Your task to perform on an android device: Open the Play Movies app and select the watchlist tab. Image 0: 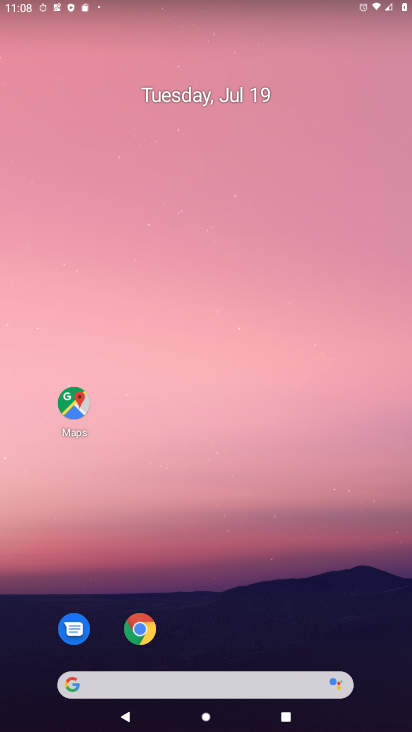
Step 0: drag from (354, 529) to (295, 88)
Your task to perform on an android device: Open the Play Movies app and select the watchlist tab. Image 1: 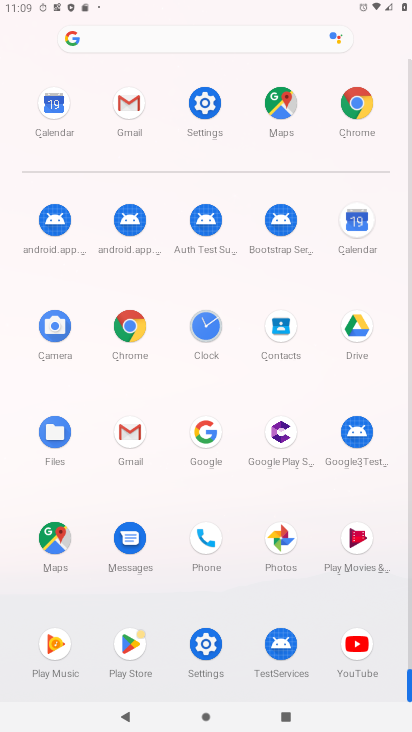
Step 1: click (366, 528)
Your task to perform on an android device: Open the Play Movies app and select the watchlist tab. Image 2: 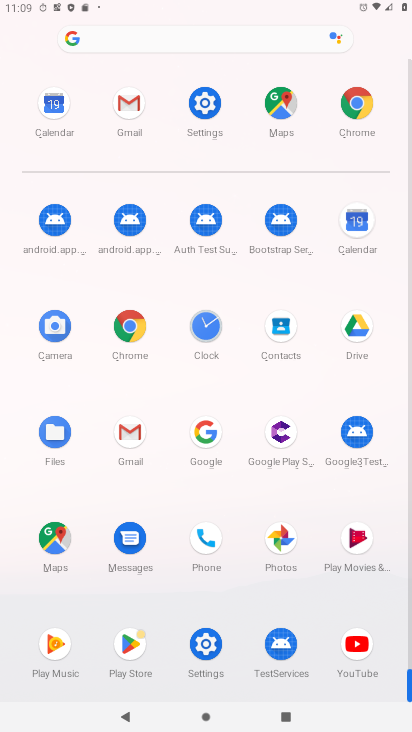
Step 2: click (366, 529)
Your task to perform on an android device: Open the Play Movies app and select the watchlist tab. Image 3: 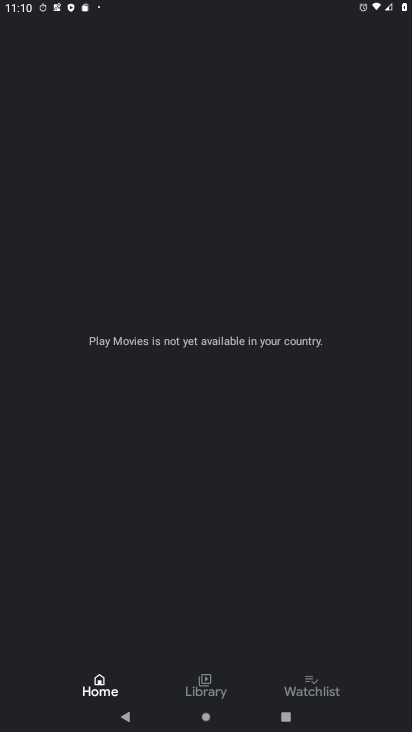
Step 3: click (317, 686)
Your task to perform on an android device: Open the Play Movies app and select the watchlist tab. Image 4: 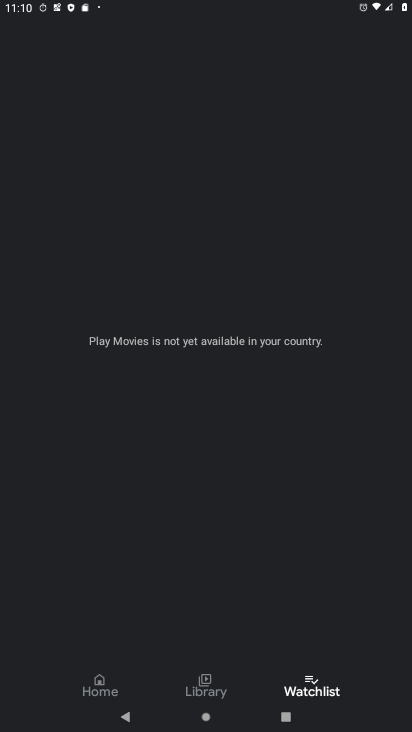
Step 4: click (317, 686)
Your task to perform on an android device: Open the Play Movies app and select the watchlist tab. Image 5: 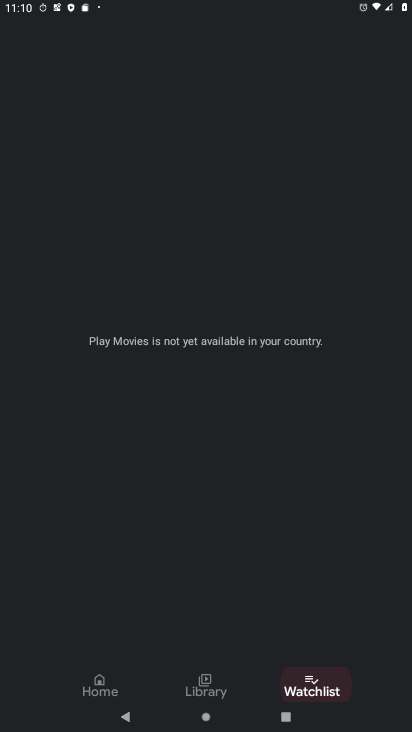
Step 5: click (316, 685)
Your task to perform on an android device: Open the Play Movies app and select the watchlist tab. Image 6: 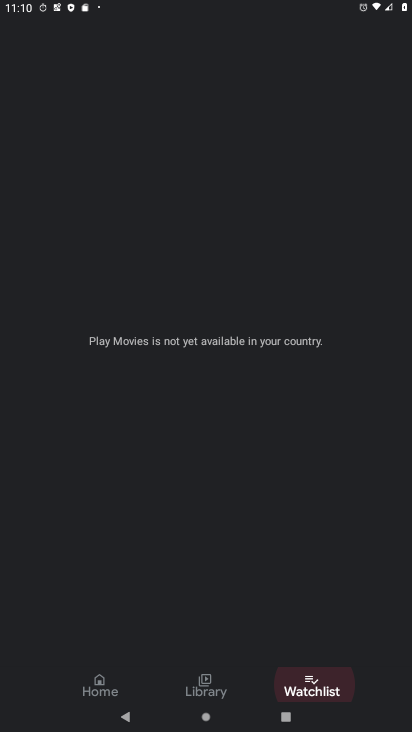
Step 6: click (315, 685)
Your task to perform on an android device: Open the Play Movies app and select the watchlist tab. Image 7: 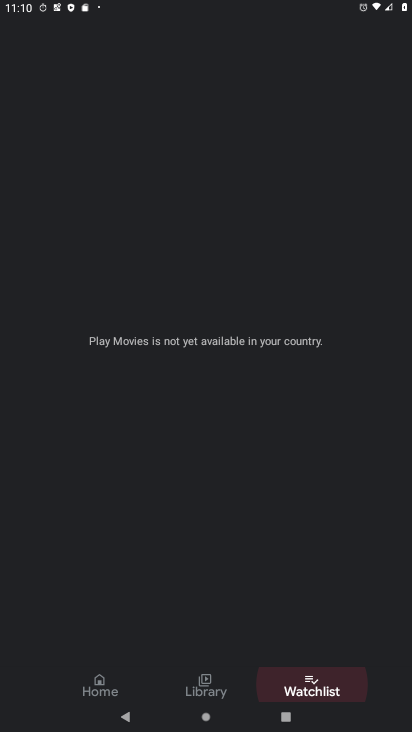
Step 7: click (315, 685)
Your task to perform on an android device: Open the Play Movies app and select the watchlist tab. Image 8: 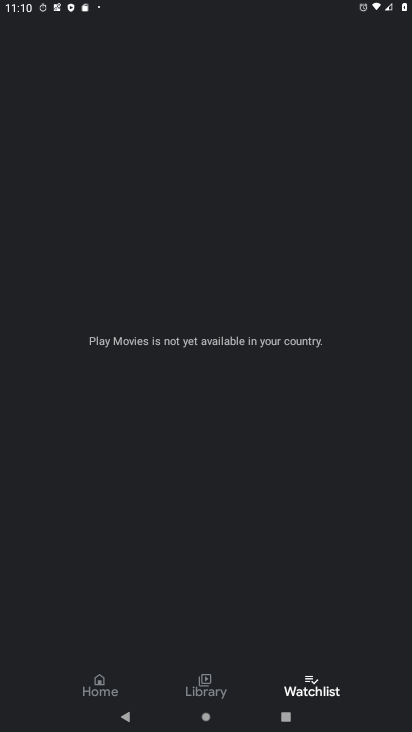
Step 8: task complete